Your task to perform on an android device: Go to Reddit.com Image 0: 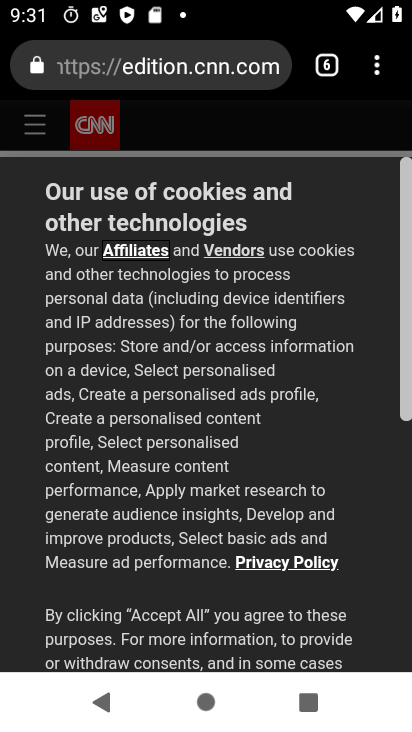
Step 0: press home button
Your task to perform on an android device: Go to Reddit.com Image 1: 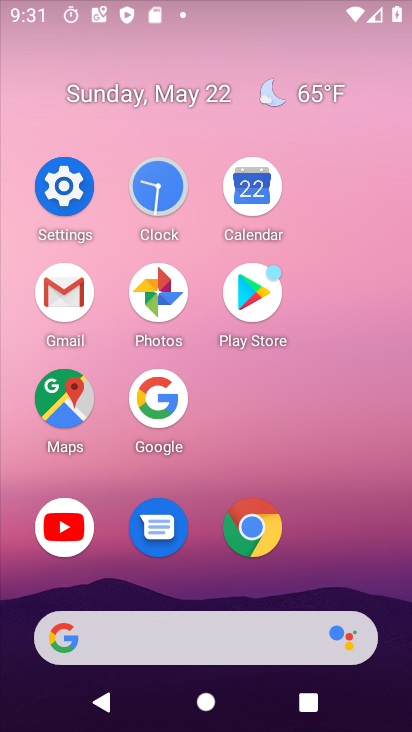
Step 1: click (267, 533)
Your task to perform on an android device: Go to Reddit.com Image 2: 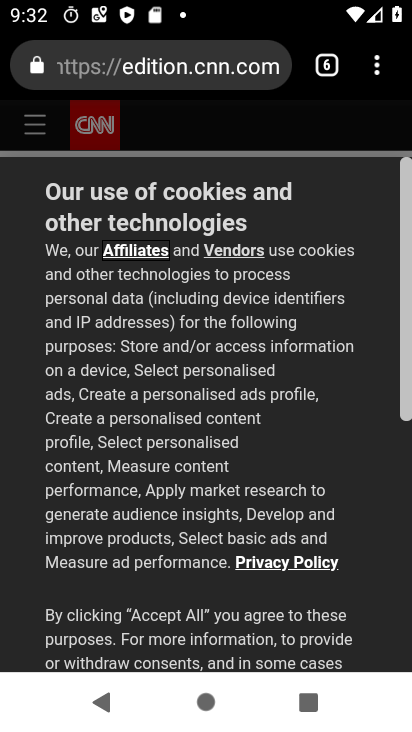
Step 2: click (331, 72)
Your task to perform on an android device: Go to Reddit.com Image 3: 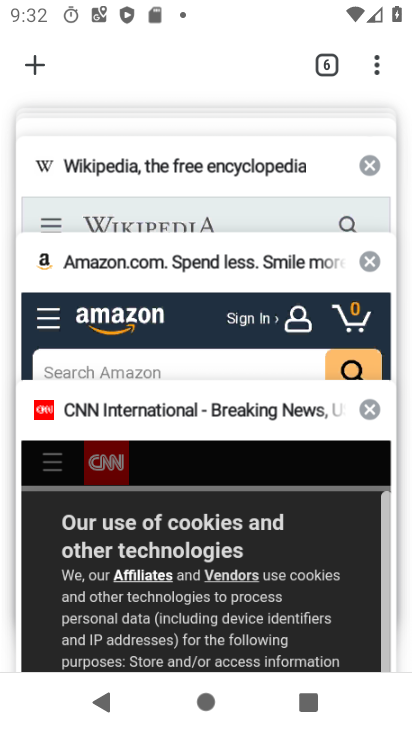
Step 3: drag from (259, 235) to (264, 619)
Your task to perform on an android device: Go to Reddit.com Image 4: 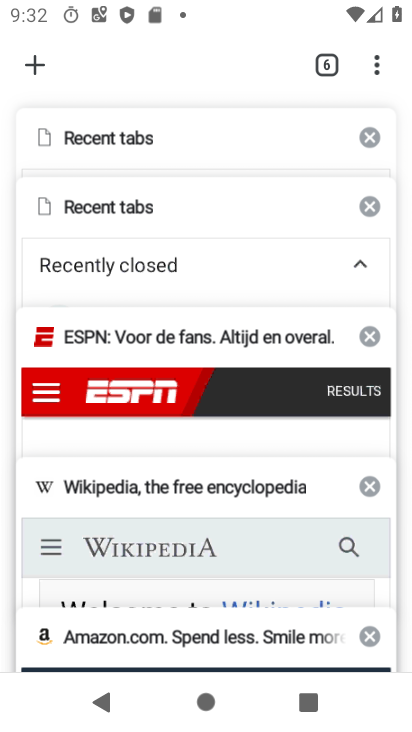
Step 4: drag from (242, 244) to (255, 516)
Your task to perform on an android device: Go to Reddit.com Image 5: 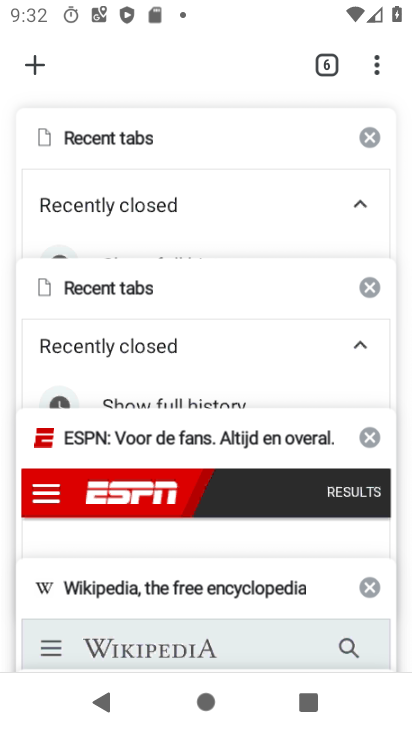
Step 5: click (51, 73)
Your task to perform on an android device: Go to Reddit.com Image 6: 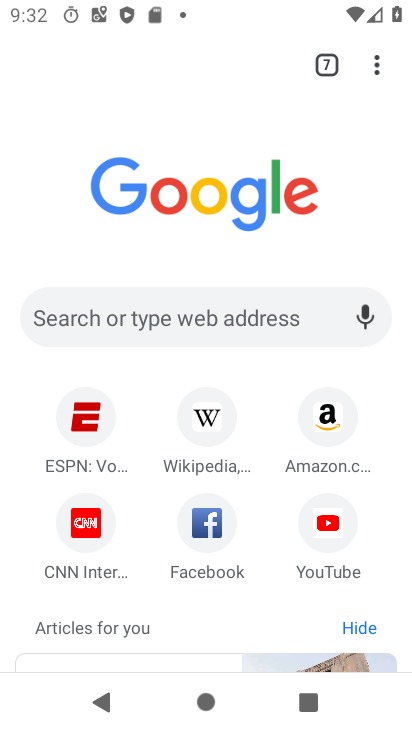
Step 6: click (183, 322)
Your task to perform on an android device: Go to Reddit.com Image 7: 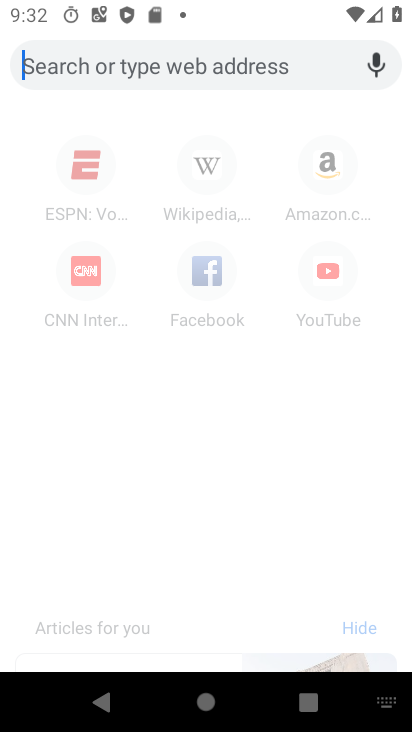
Step 7: type "reddit"
Your task to perform on an android device: Go to Reddit.com Image 8: 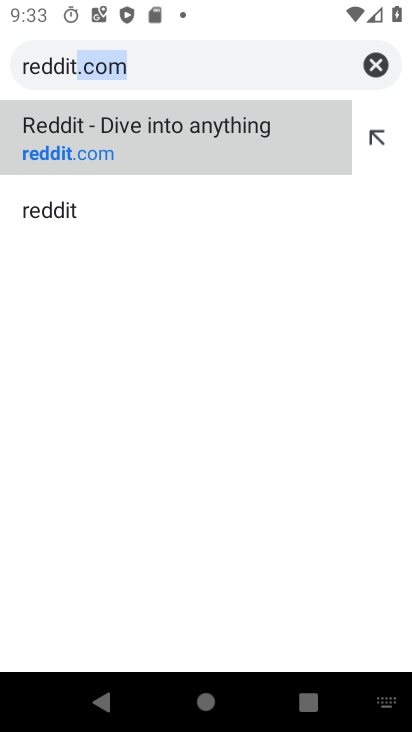
Step 8: click (118, 157)
Your task to perform on an android device: Go to Reddit.com Image 9: 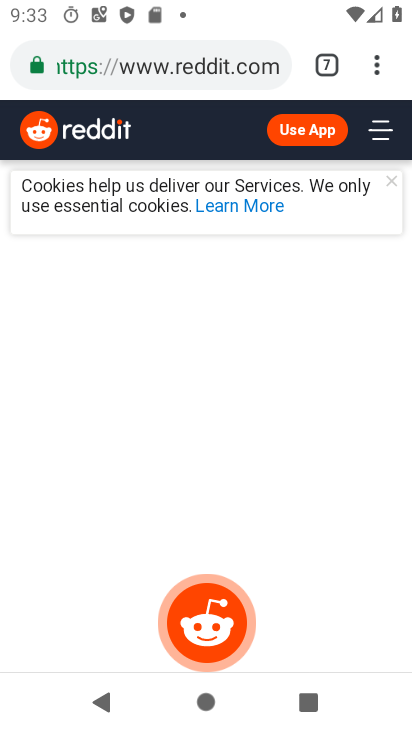
Step 9: task complete